Your task to perform on an android device: Open Yahoo.com Image 0: 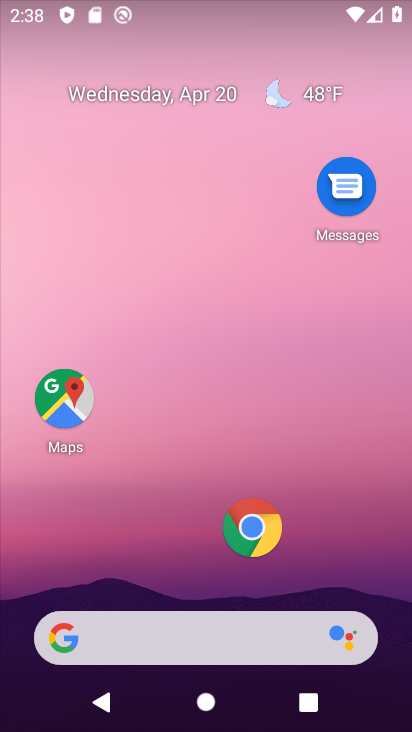
Step 0: drag from (167, 657) to (348, 138)
Your task to perform on an android device: Open Yahoo.com Image 1: 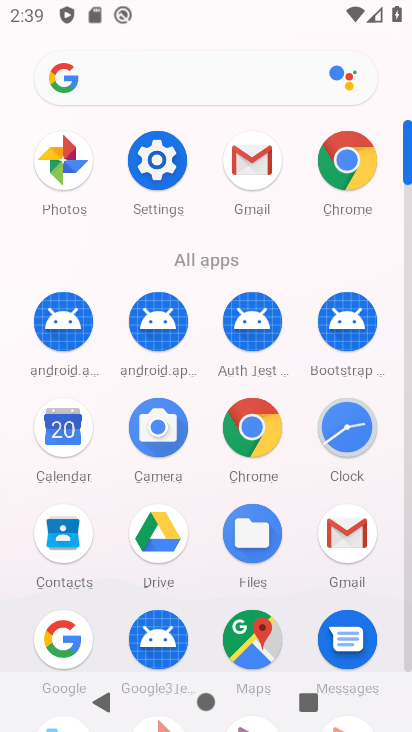
Step 1: click (348, 173)
Your task to perform on an android device: Open Yahoo.com Image 2: 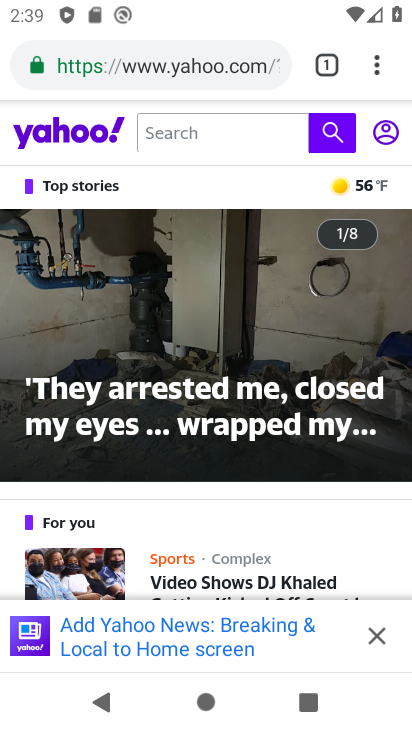
Step 2: task complete